Your task to perform on an android device: Go to settings Image 0: 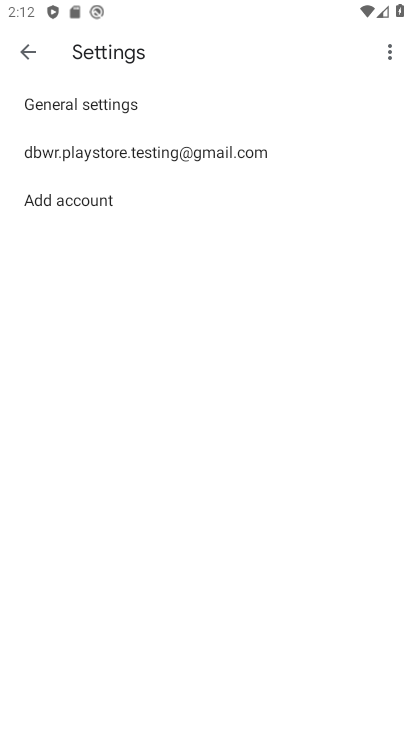
Step 0: press home button
Your task to perform on an android device: Go to settings Image 1: 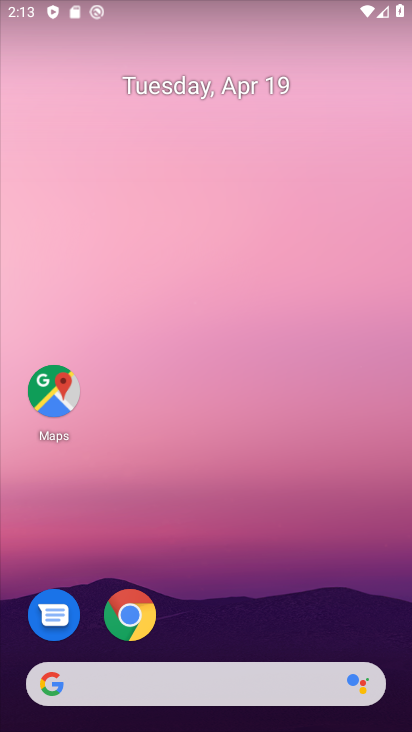
Step 1: drag from (221, 595) to (255, 175)
Your task to perform on an android device: Go to settings Image 2: 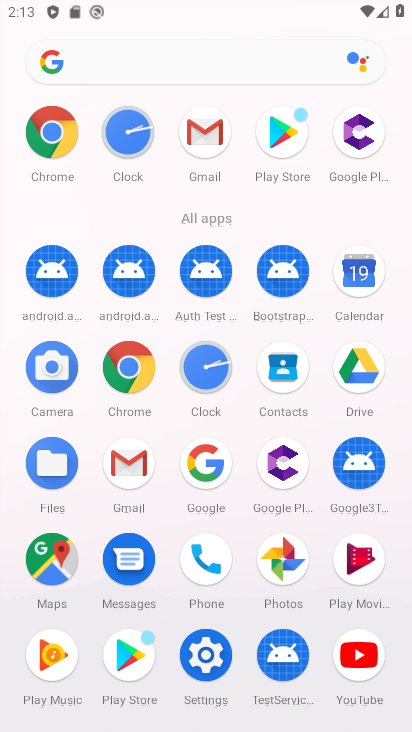
Step 2: click (205, 650)
Your task to perform on an android device: Go to settings Image 3: 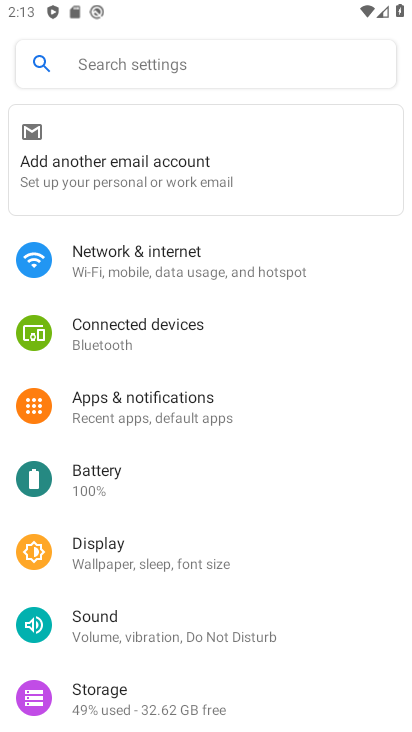
Step 3: task complete